Your task to perform on an android device: Open ESPN.com Image 0: 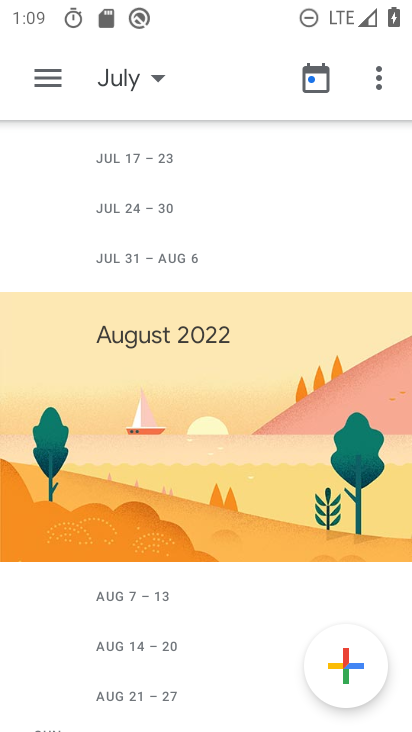
Step 0: press home button
Your task to perform on an android device: Open ESPN.com Image 1: 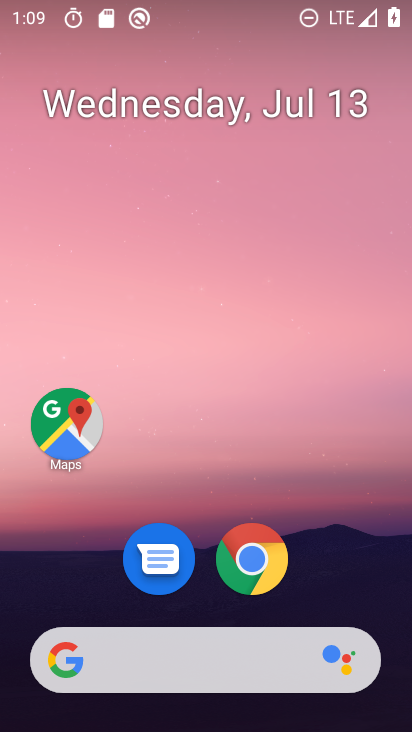
Step 1: drag from (230, 630) to (349, 274)
Your task to perform on an android device: Open ESPN.com Image 2: 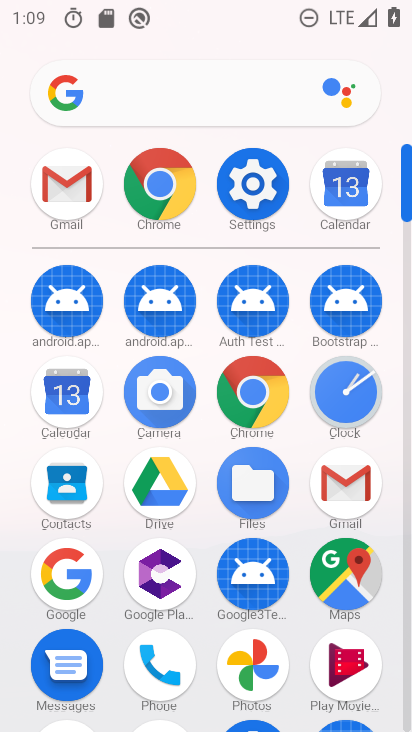
Step 2: drag from (206, 588) to (214, 422)
Your task to perform on an android device: Open ESPN.com Image 3: 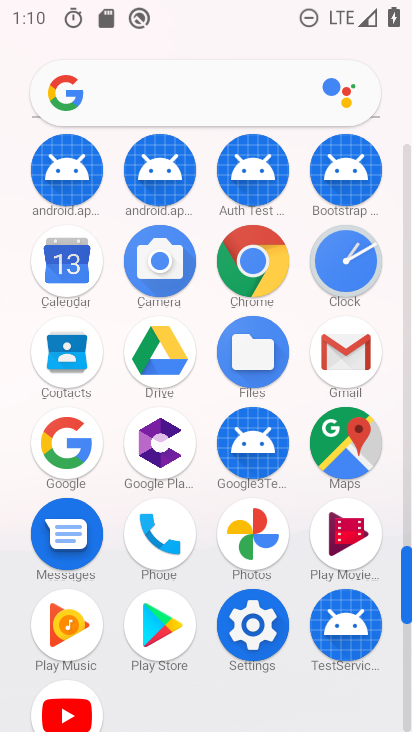
Step 3: click (260, 280)
Your task to perform on an android device: Open ESPN.com Image 4: 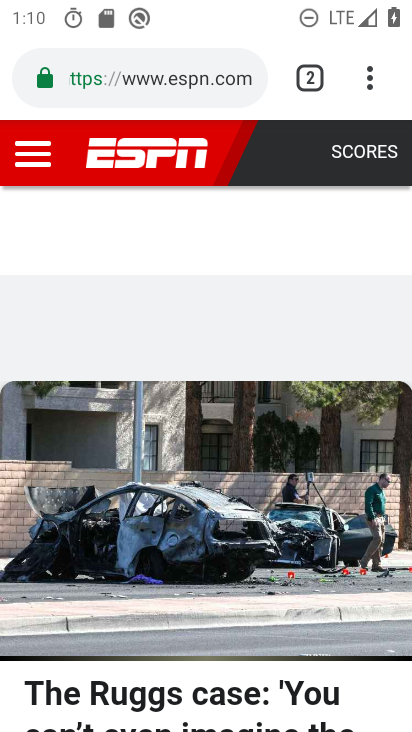
Step 4: task complete